Your task to perform on an android device: What's on my calendar today? Image 0: 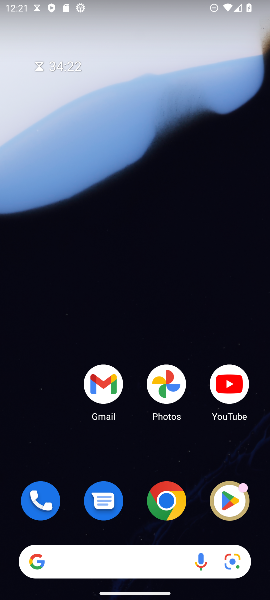
Step 0: drag from (121, 521) to (139, 123)
Your task to perform on an android device: What's on my calendar today? Image 1: 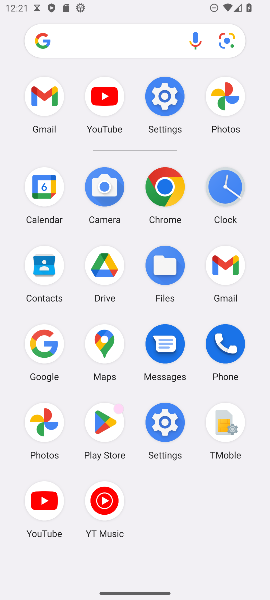
Step 1: click (46, 204)
Your task to perform on an android device: What's on my calendar today? Image 2: 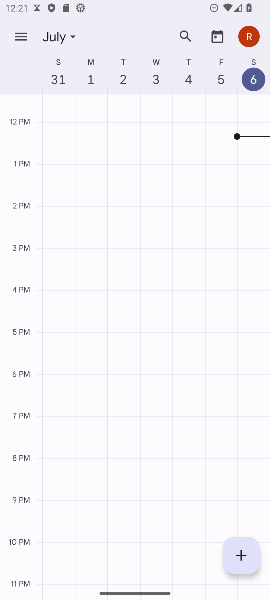
Step 2: click (66, 37)
Your task to perform on an android device: What's on my calendar today? Image 3: 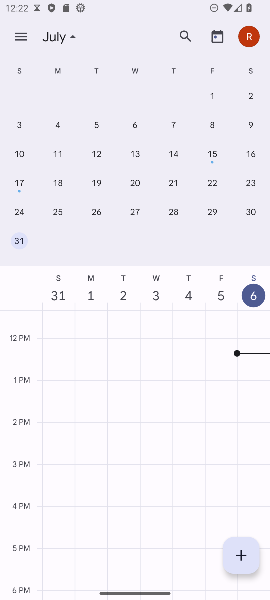
Step 3: drag from (161, 155) to (14, 136)
Your task to perform on an android device: What's on my calendar today? Image 4: 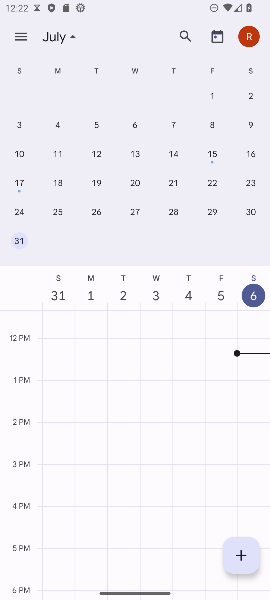
Step 4: drag from (218, 175) to (0, 149)
Your task to perform on an android device: What's on my calendar today? Image 5: 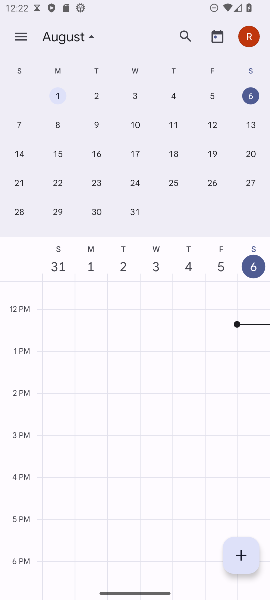
Step 5: click (253, 94)
Your task to perform on an android device: What's on my calendar today? Image 6: 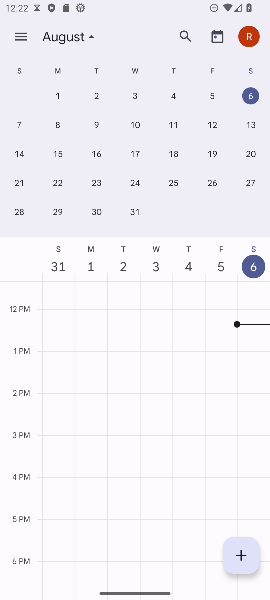
Step 6: task complete